Your task to perform on an android device: Open calendar and show me the second week of next month Image 0: 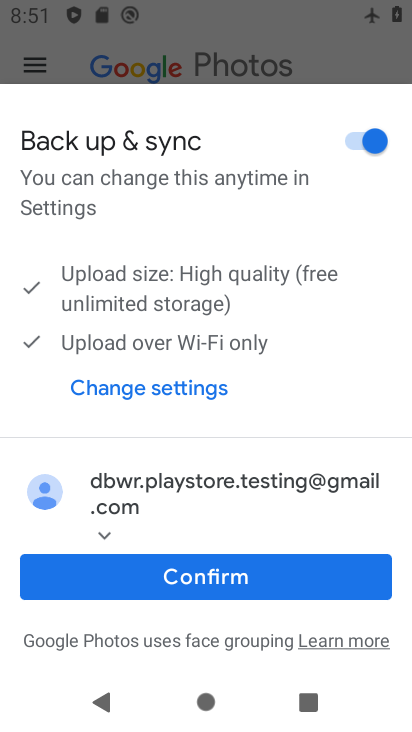
Step 0: press home button
Your task to perform on an android device: Open calendar and show me the second week of next month Image 1: 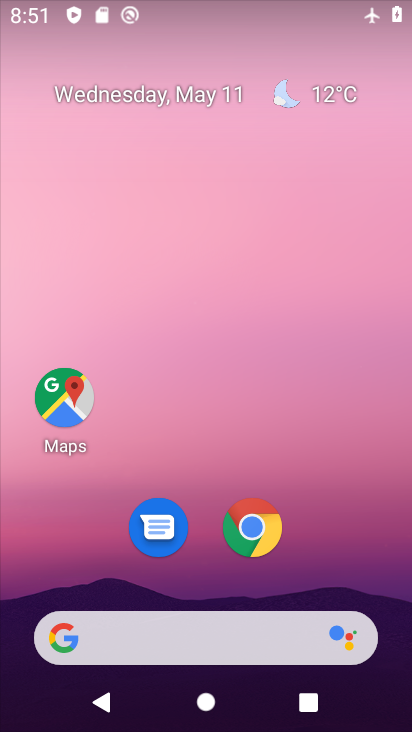
Step 1: drag from (334, 552) to (337, 150)
Your task to perform on an android device: Open calendar and show me the second week of next month Image 2: 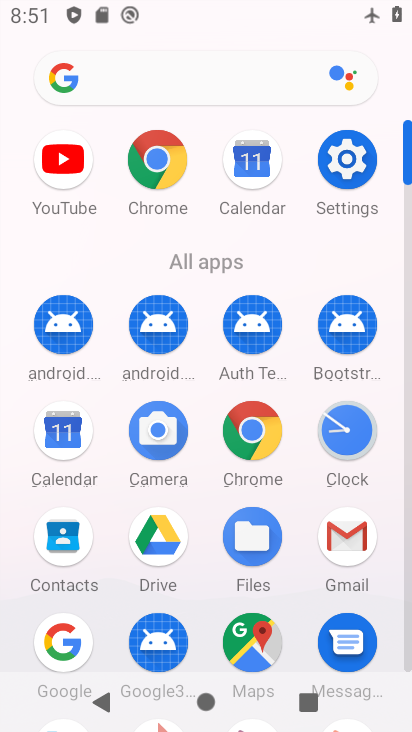
Step 2: click (64, 431)
Your task to perform on an android device: Open calendar and show me the second week of next month Image 3: 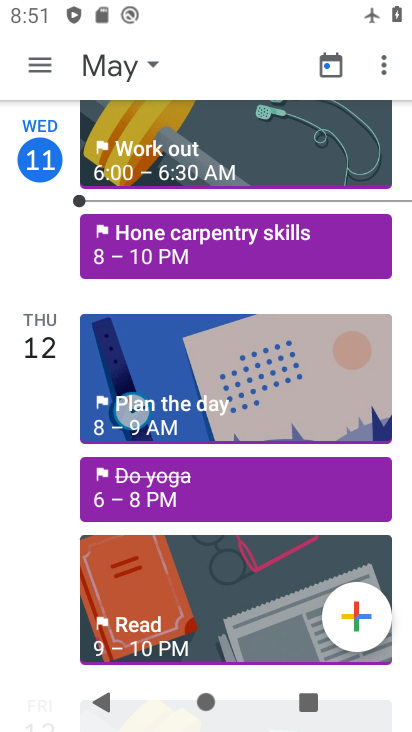
Step 3: click (110, 63)
Your task to perform on an android device: Open calendar and show me the second week of next month Image 4: 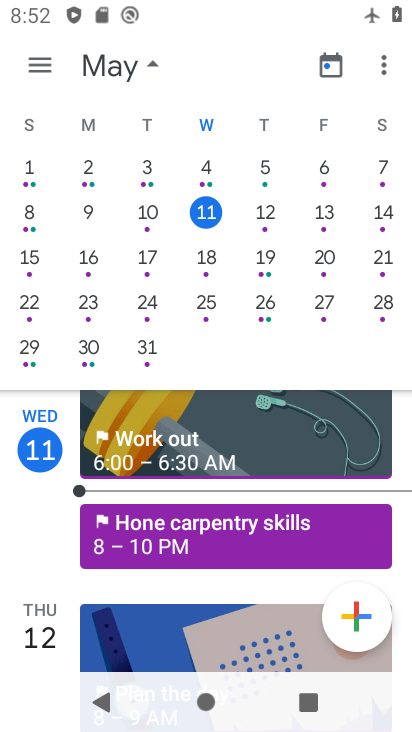
Step 4: drag from (369, 227) to (9, 203)
Your task to perform on an android device: Open calendar and show me the second week of next month Image 5: 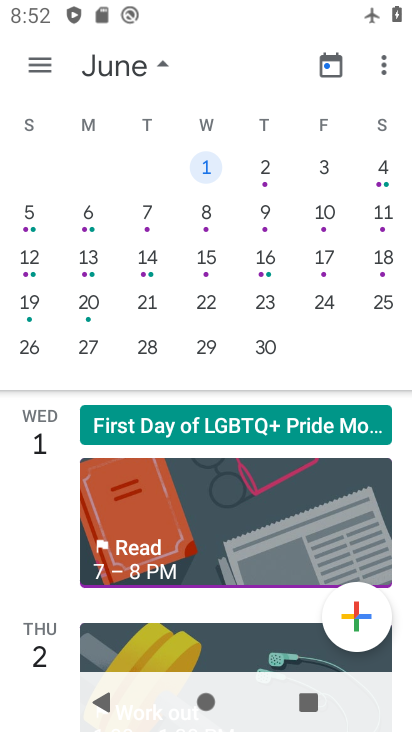
Step 5: click (36, 263)
Your task to perform on an android device: Open calendar and show me the second week of next month Image 6: 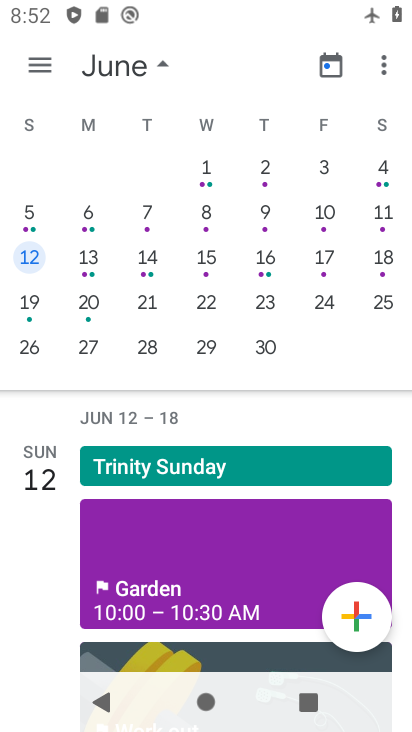
Step 6: task complete